Your task to perform on an android device: turn pop-ups on in chrome Image 0: 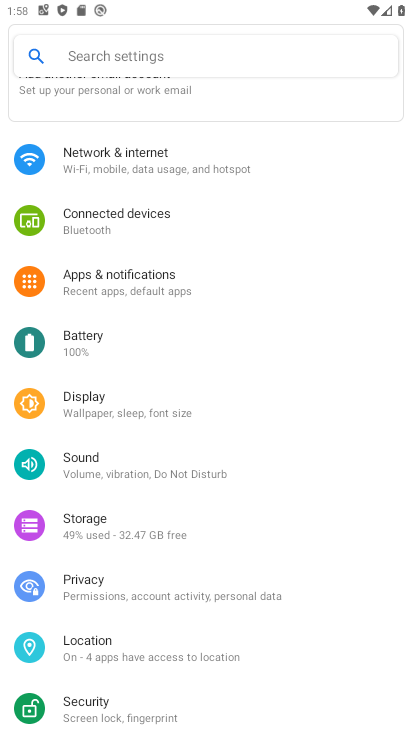
Step 0: press home button
Your task to perform on an android device: turn pop-ups on in chrome Image 1: 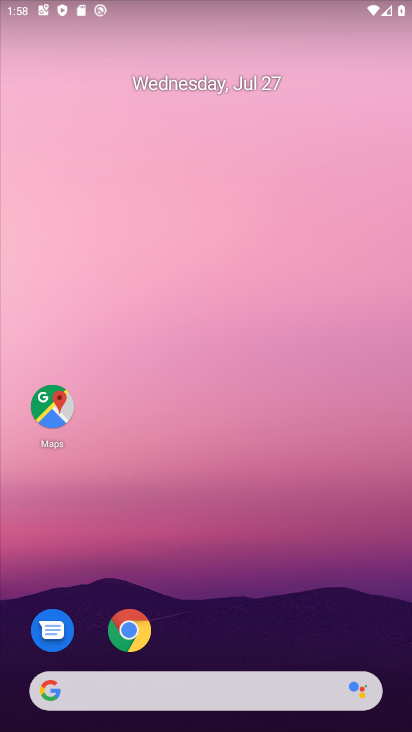
Step 1: click (130, 629)
Your task to perform on an android device: turn pop-ups on in chrome Image 2: 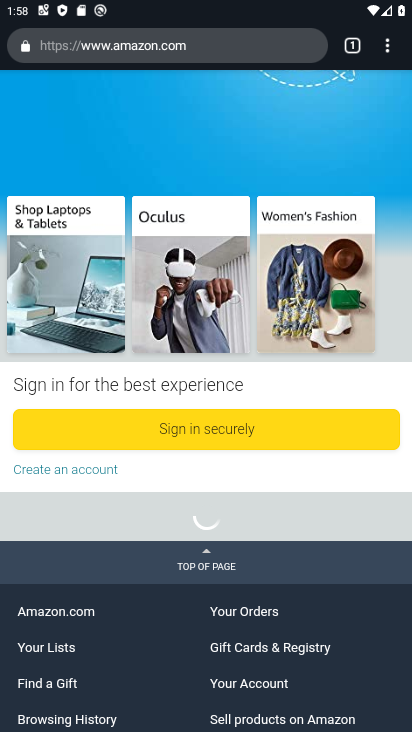
Step 2: click (388, 52)
Your task to perform on an android device: turn pop-ups on in chrome Image 3: 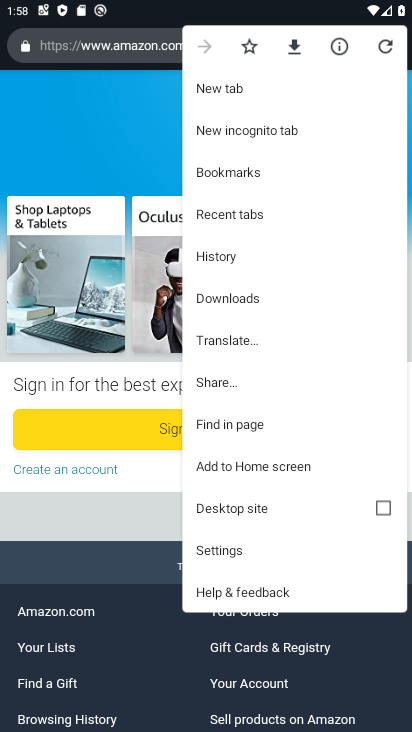
Step 3: click (233, 543)
Your task to perform on an android device: turn pop-ups on in chrome Image 4: 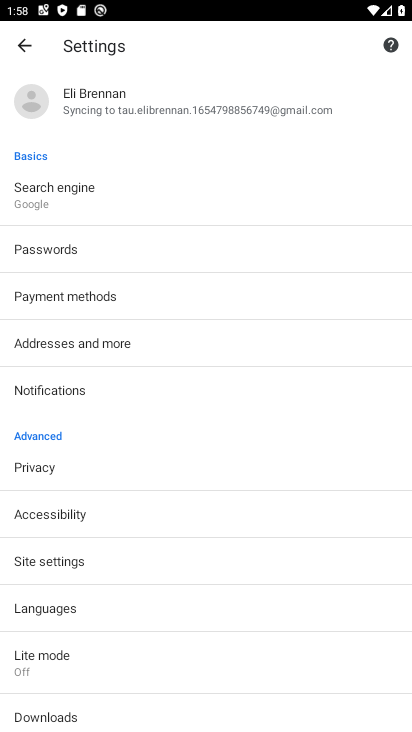
Step 4: drag from (198, 693) to (196, 367)
Your task to perform on an android device: turn pop-ups on in chrome Image 5: 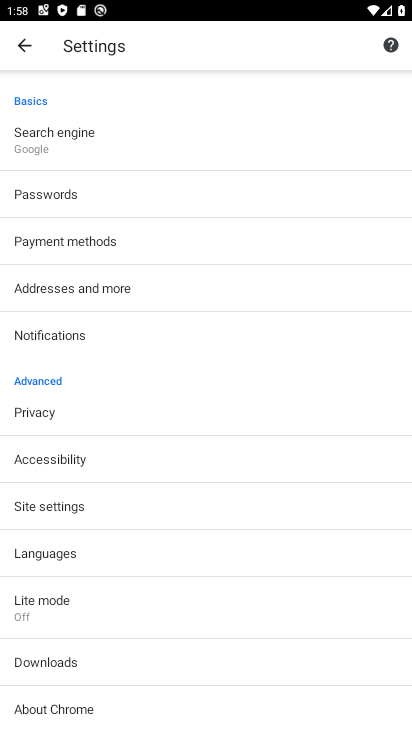
Step 5: click (37, 507)
Your task to perform on an android device: turn pop-ups on in chrome Image 6: 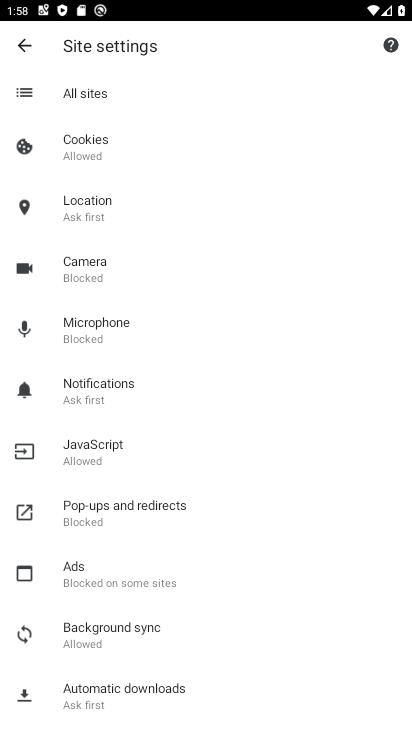
Step 6: click (80, 504)
Your task to perform on an android device: turn pop-ups on in chrome Image 7: 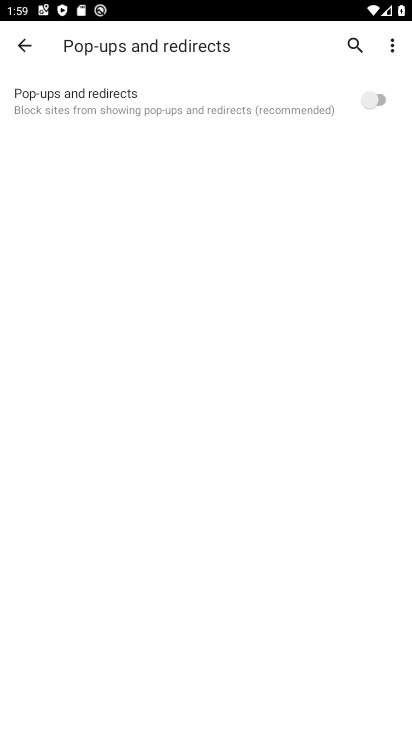
Step 7: click (381, 96)
Your task to perform on an android device: turn pop-ups on in chrome Image 8: 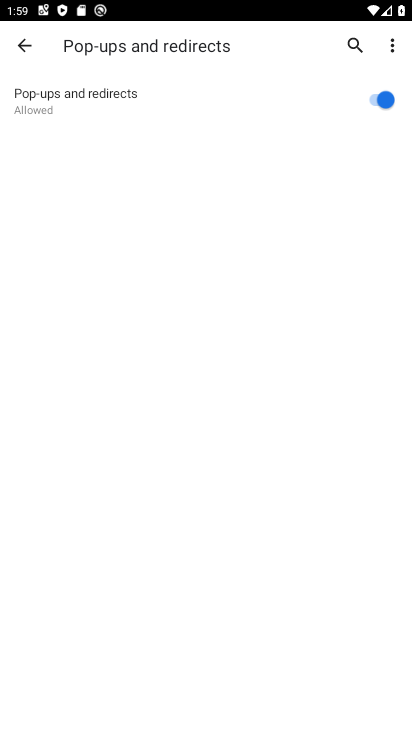
Step 8: task complete